Your task to perform on an android device: open a bookmark in the chrome app Image 0: 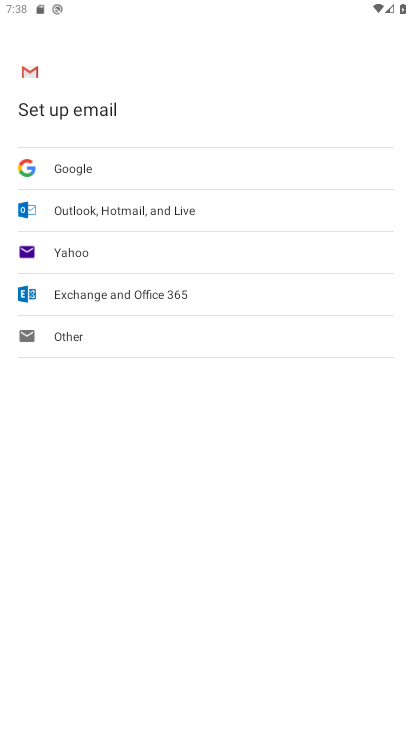
Step 0: press home button
Your task to perform on an android device: open a bookmark in the chrome app Image 1: 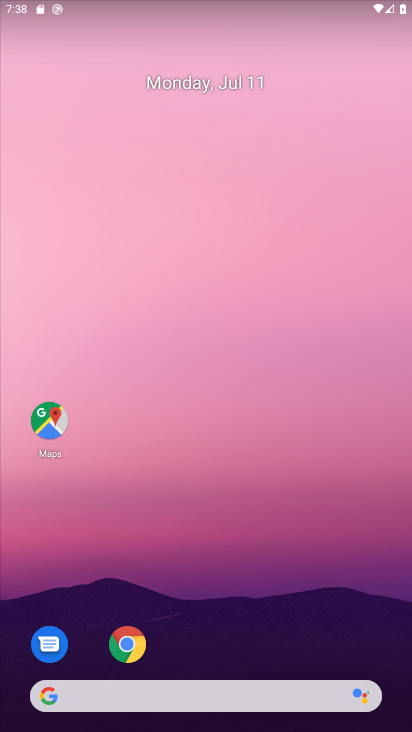
Step 1: drag from (241, 711) to (235, 119)
Your task to perform on an android device: open a bookmark in the chrome app Image 2: 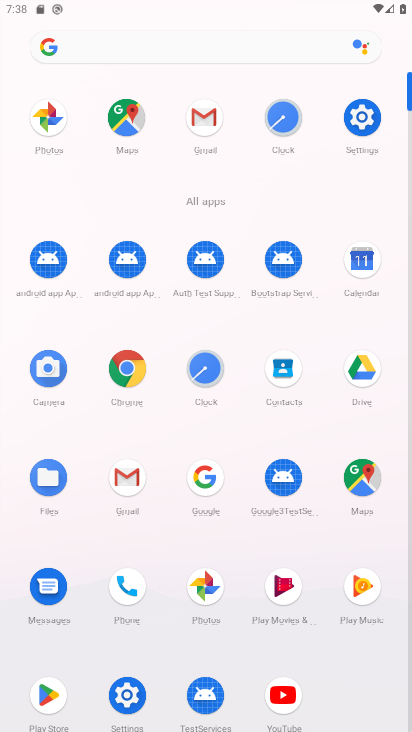
Step 2: click (136, 370)
Your task to perform on an android device: open a bookmark in the chrome app Image 3: 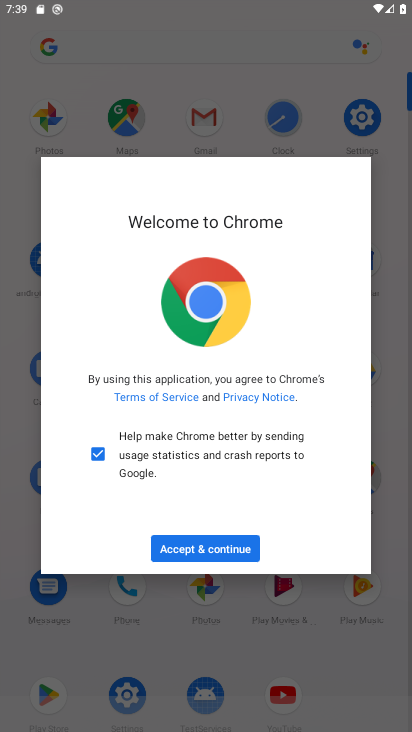
Step 3: click (198, 543)
Your task to perform on an android device: open a bookmark in the chrome app Image 4: 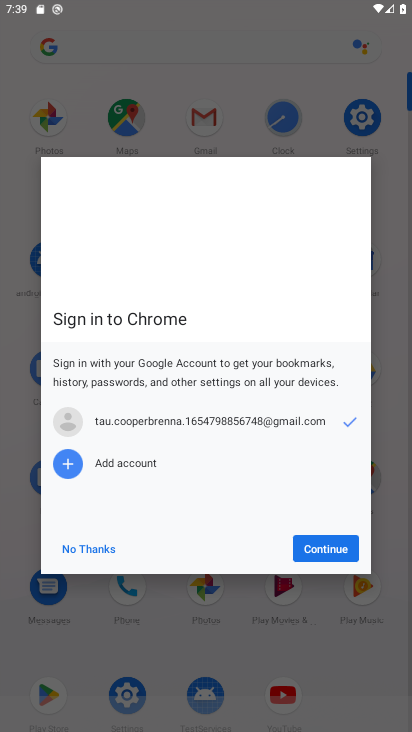
Step 4: click (338, 547)
Your task to perform on an android device: open a bookmark in the chrome app Image 5: 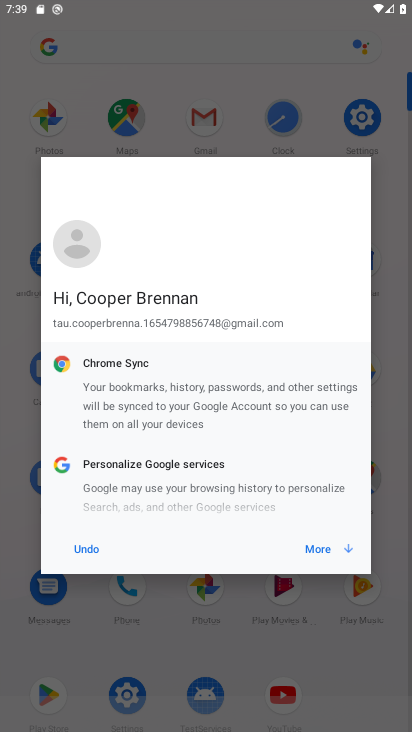
Step 5: click (77, 548)
Your task to perform on an android device: open a bookmark in the chrome app Image 6: 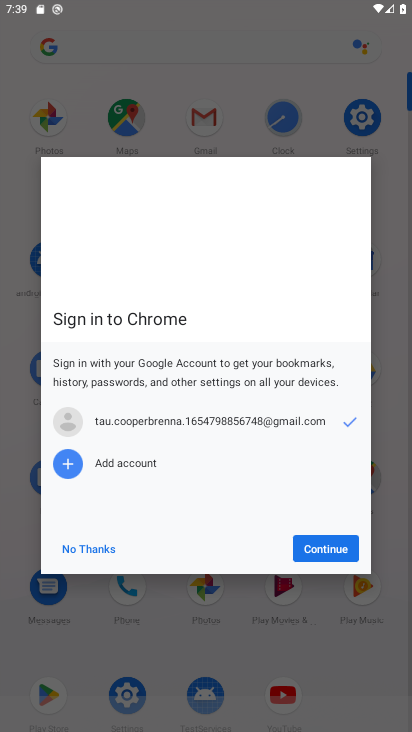
Step 6: click (331, 541)
Your task to perform on an android device: open a bookmark in the chrome app Image 7: 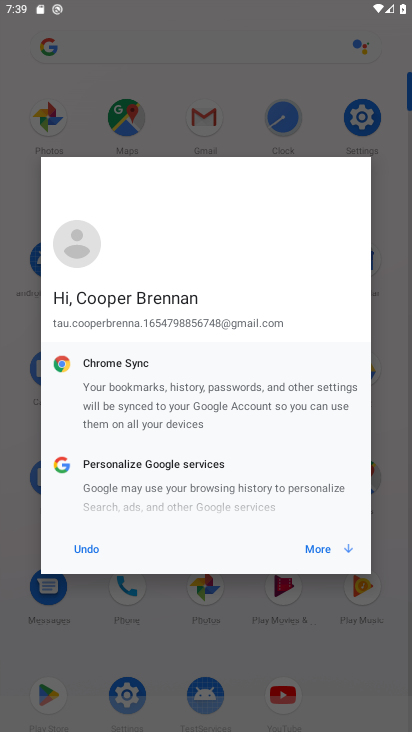
Step 7: click (319, 541)
Your task to perform on an android device: open a bookmark in the chrome app Image 8: 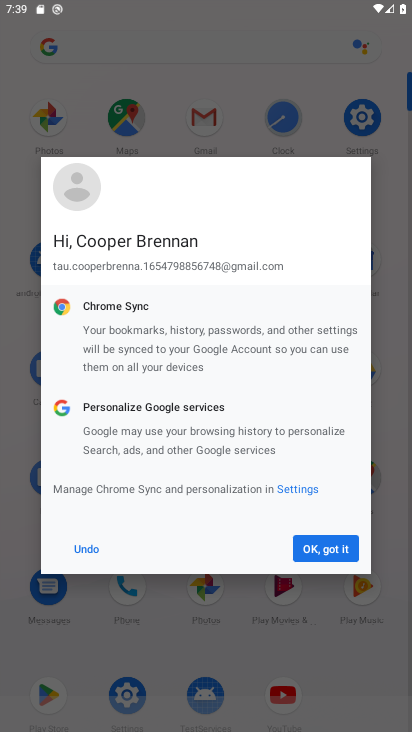
Step 8: click (317, 546)
Your task to perform on an android device: open a bookmark in the chrome app Image 9: 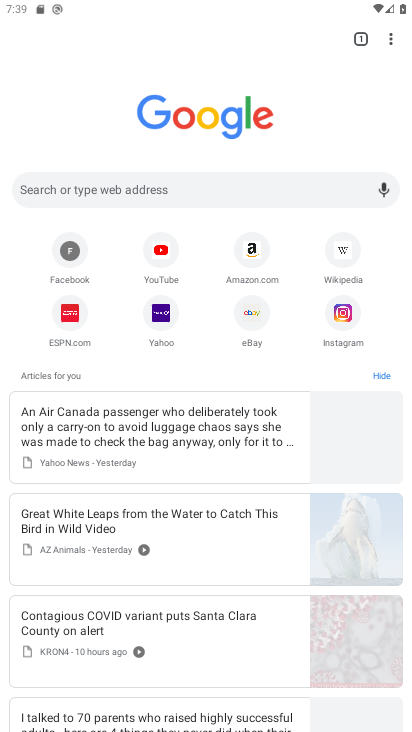
Step 9: click (396, 31)
Your task to perform on an android device: open a bookmark in the chrome app Image 10: 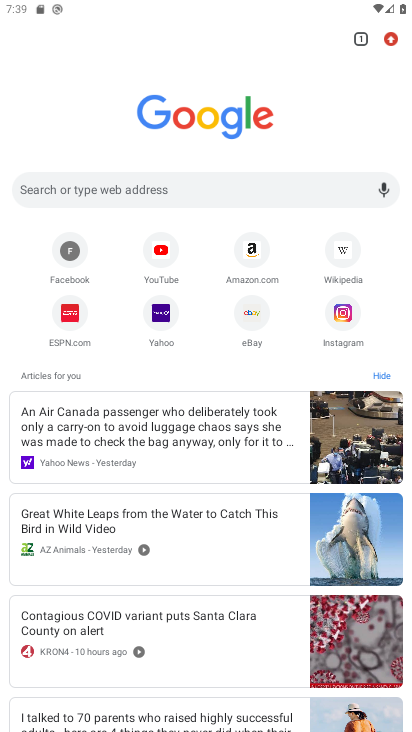
Step 10: click (393, 43)
Your task to perform on an android device: open a bookmark in the chrome app Image 11: 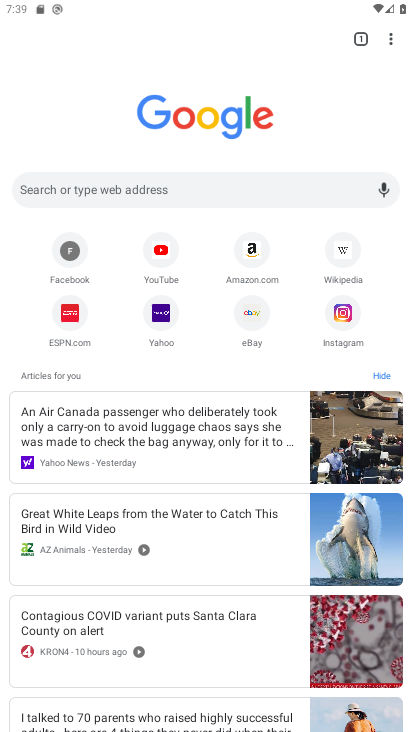
Step 11: click (393, 43)
Your task to perform on an android device: open a bookmark in the chrome app Image 12: 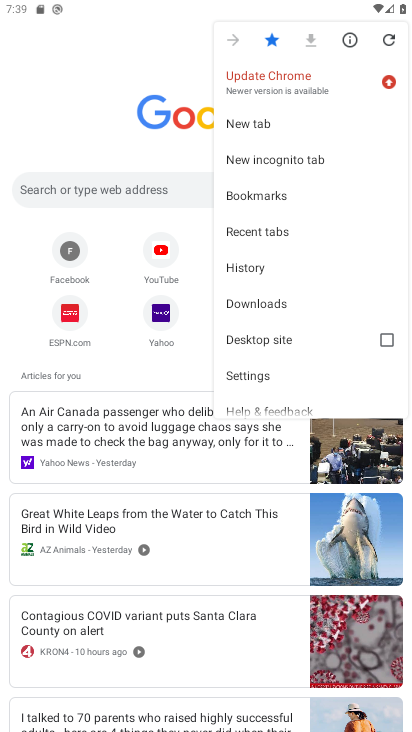
Step 12: click (260, 196)
Your task to perform on an android device: open a bookmark in the chrome app Image 13: 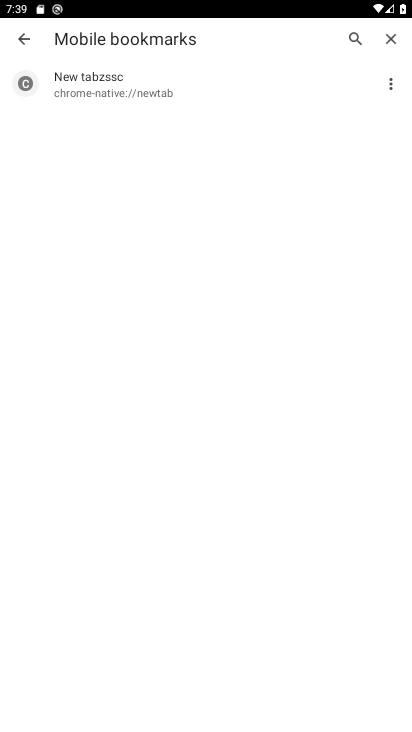
Step 13: task complete